Your task to perform on an android device: clear all cookies in the chrome app Image 0: 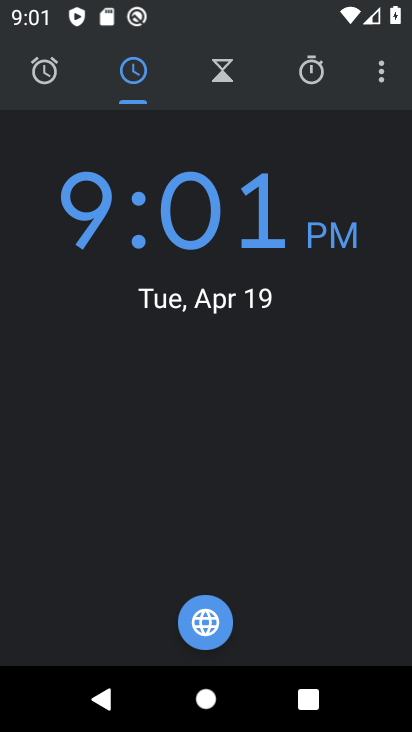
Step 0: press home button
Your task to perform on an android device: clear all cookies in the chrome app Image 1: 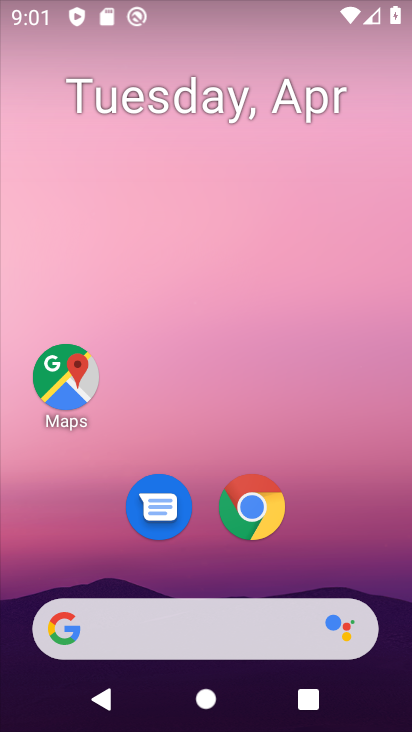
Step 1: drag from (325, 542) to (327, 120)
Your task to perform on an android device: clear all cookies in the chrome app Image 2: 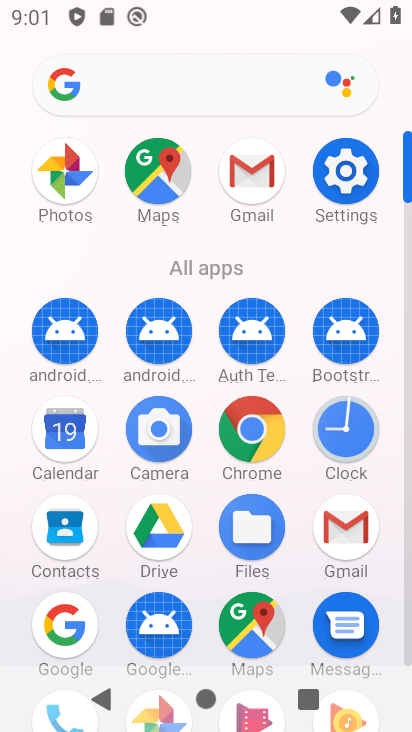
Step 2: click (253, 448)
Your task to perform on an android device: clear all cookies in the chrome app Image 3: 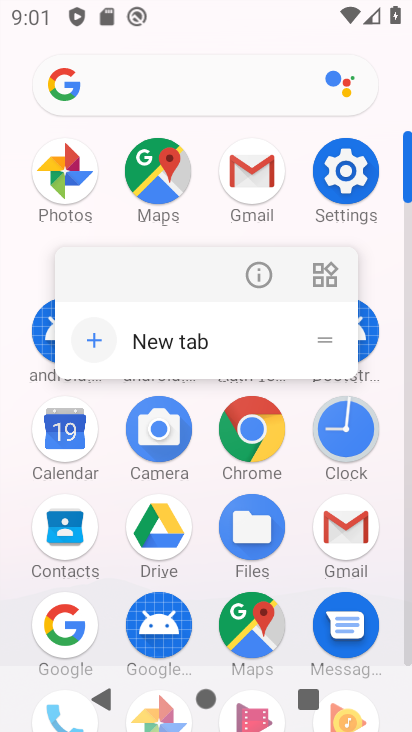
Step 3: click (255, 446)
Your task to perform on an android device: clear all cookies in the chrome app Image 4: 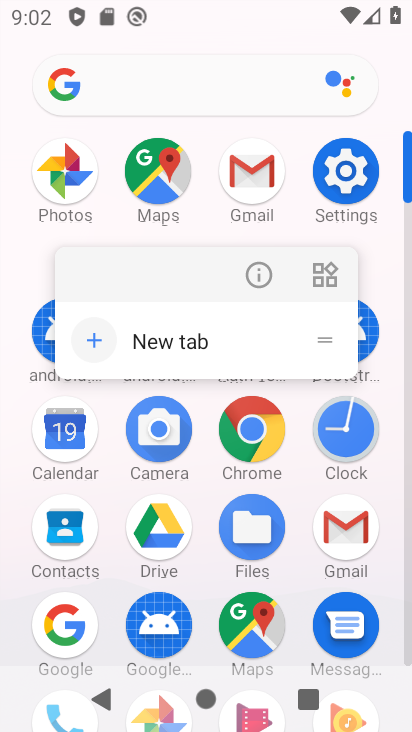
Step 4: click (264, 429)
Your task to perform on an android device: clear all cookies in the chrome app Image 5: 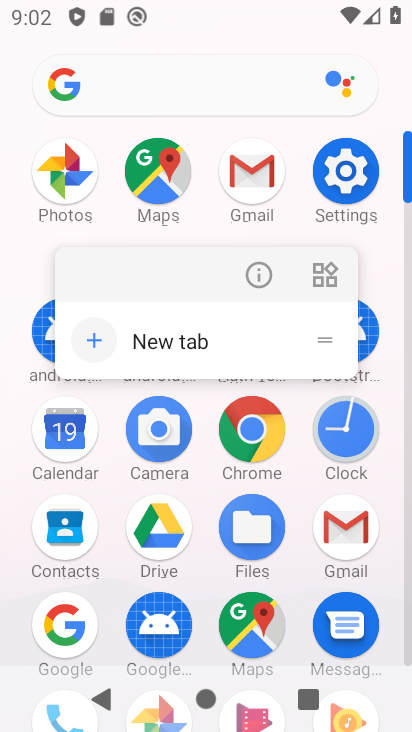
Step 5: click (252, 429)
Your task to perform on an android device: clear all cookies in the chrome app Image 6: 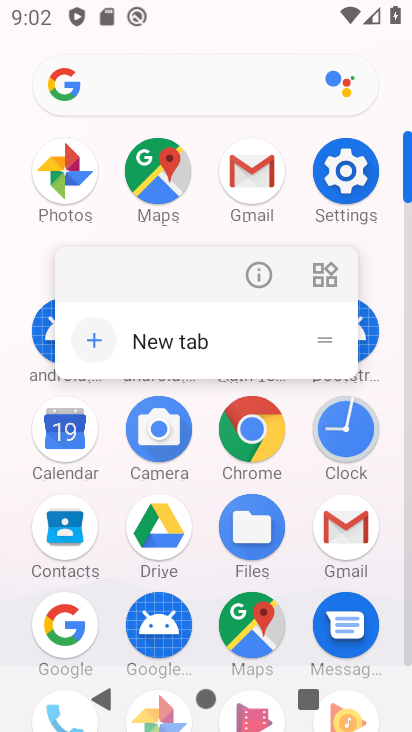
Step 6: click (237, 406)
Your task to perform on an android device: clear all cookies in the chrome app Image 7: 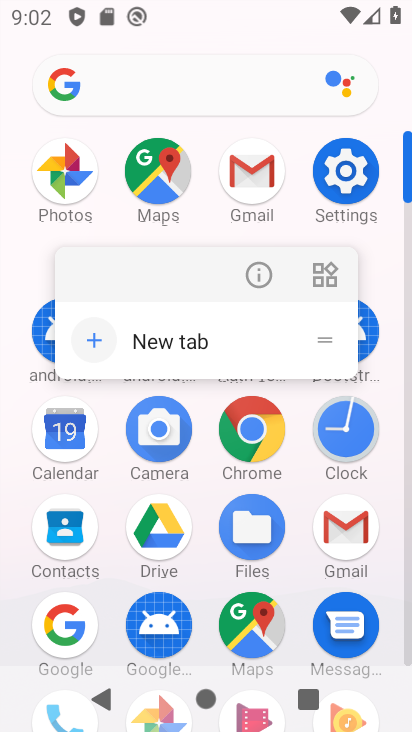
Step 7: click (267, 428)
Your task to perform on an android device: clear all cookies in the chrome app Image 8: 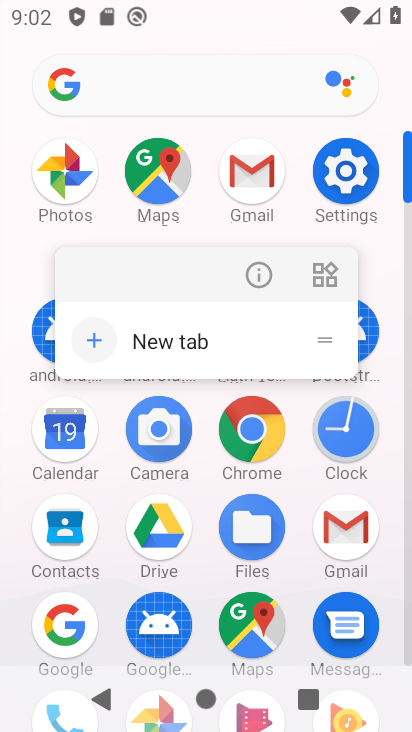
Step 8: click (252, 429)
Your task to perform on an android device: clear all cookies in the chrome app Image 9: 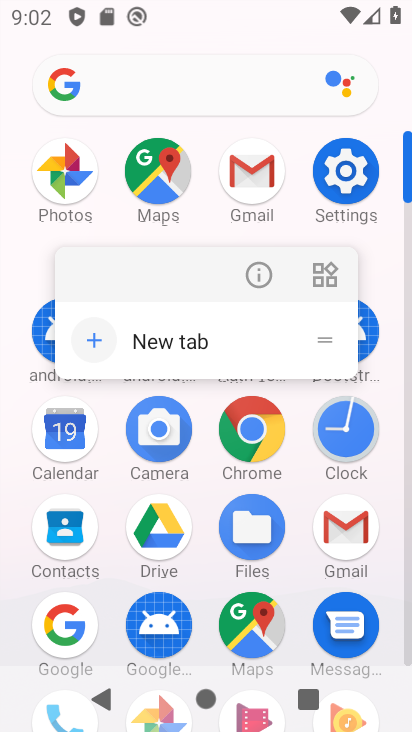
Step 9: click (253, 440)
Your task to perform on an android device: clear all cookies in the chrome app Image 10: 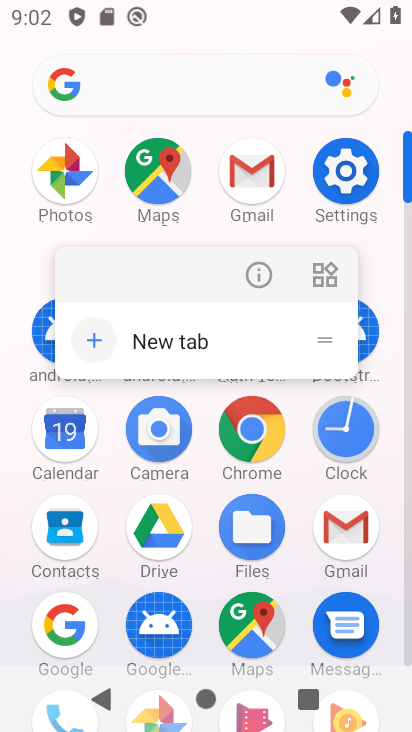
Step 10: click (253, 440)
Your task to perform on an android device: clear all cookies in the chrome app Image 11: 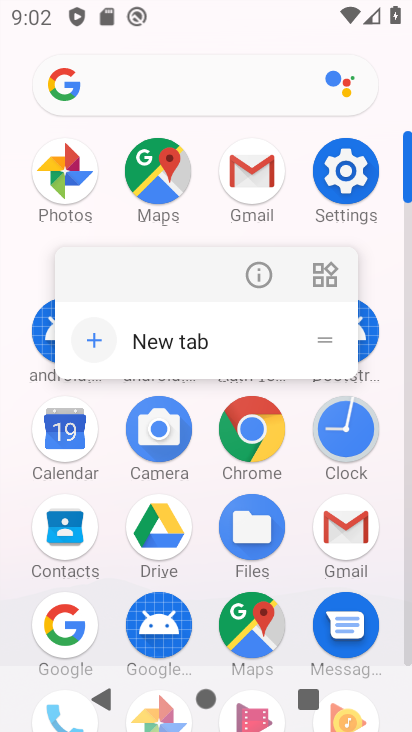
Step 11: click (261, 435)
Your task to perform on an android device: clear all cookies in the chrome app Image 12: 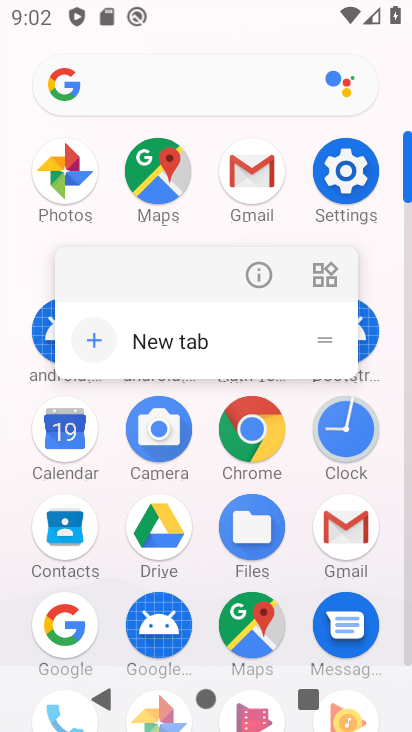
Step 12: click (273, 453)
Your task to perform on an android device: clear all cookies in the chrome app Image 13: 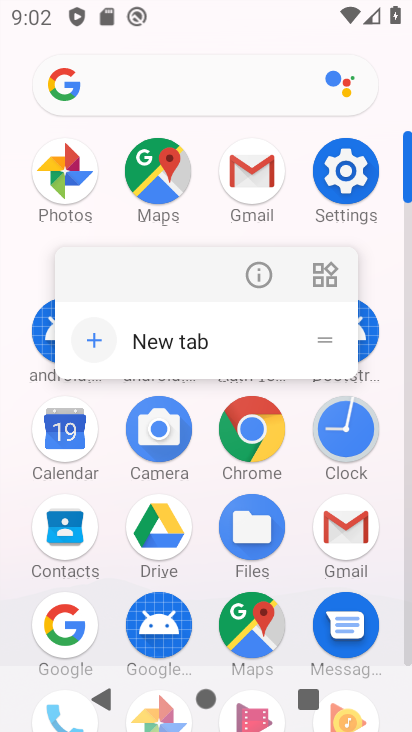
Step 13: click (300, 471)
Your task to perform on an android device: clear all cookies in the chrome app Image 14: 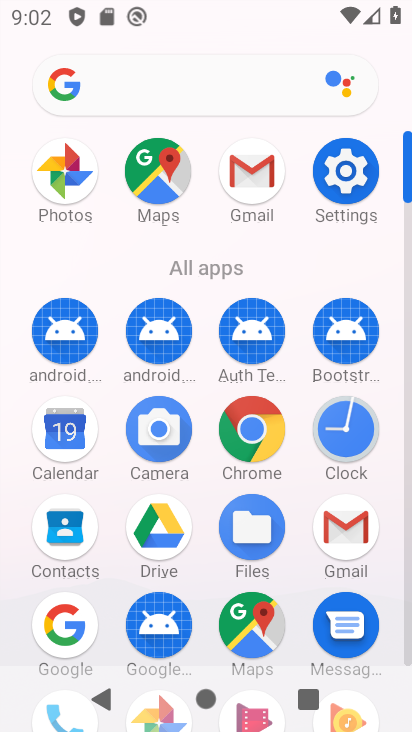
Step 14: click (254, 434)
Your task to perform on an android device: clear all cookies in the chrome app Image 15: 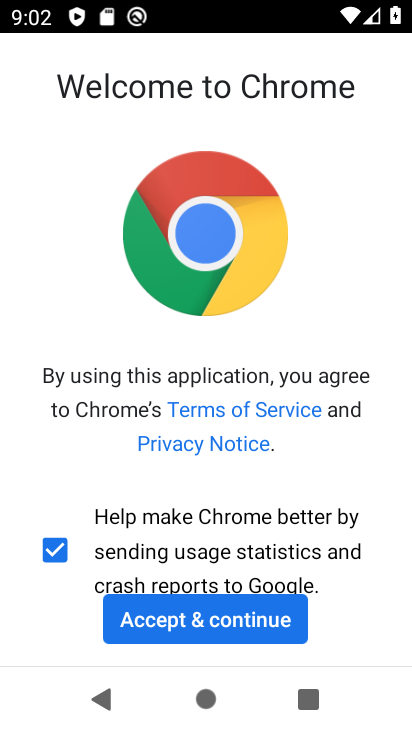
Step 15: click (245, 608)
Your task to perform on an android device: clear all cookies in the chrome app Image 16: 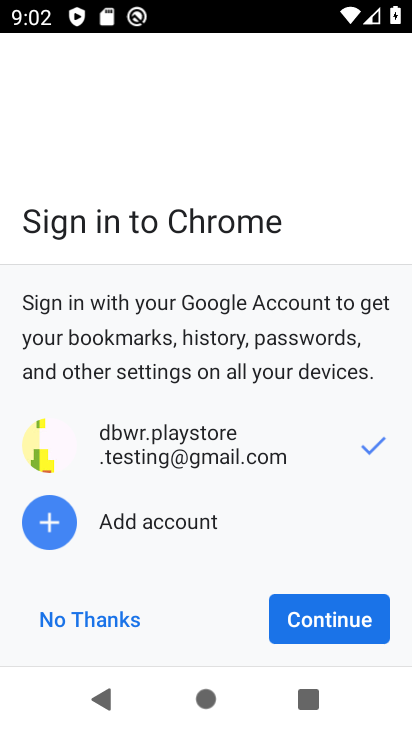
Step 16: click (347, 619)
Your task to perform on an android device: clear all cookies in the chrome app Image 17: 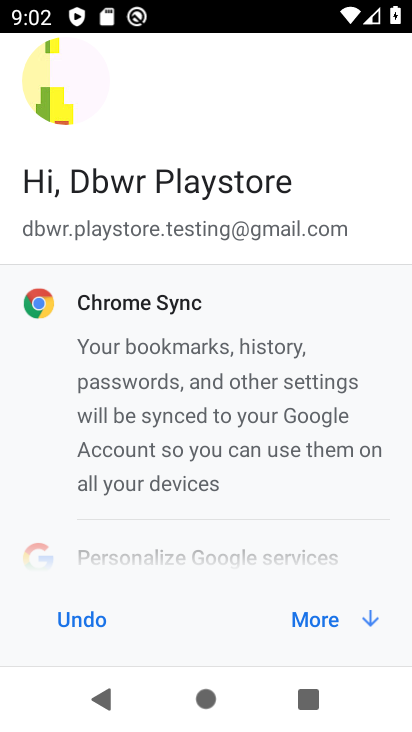
Step 17: click (347, 619)
Your task to perform on an android device: clear all cookies in the chrome app Image 18: 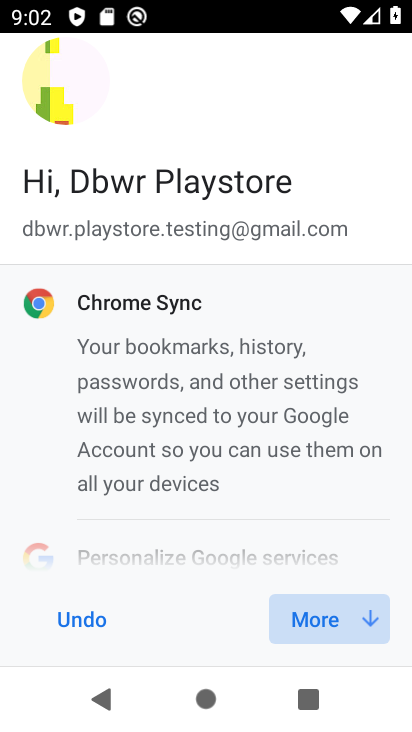
Step 18: click (347, 619)
Your task to perform on an android device: clear all cookies in the chrome app Image 19: 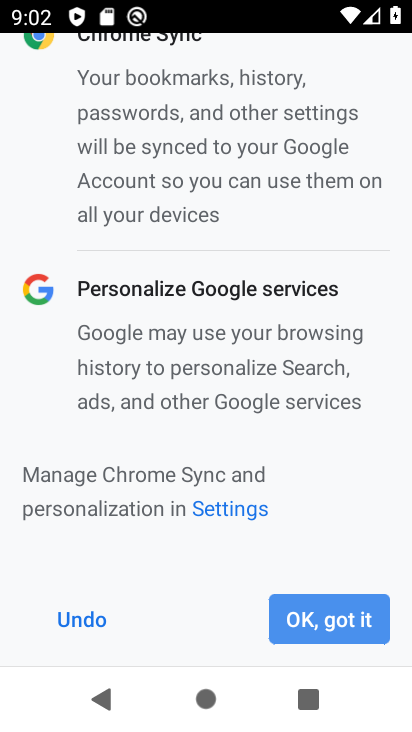
Step 19: click (346, 618)
Your task to perform on an android device: clear all cookies in the chrome app Image 20: 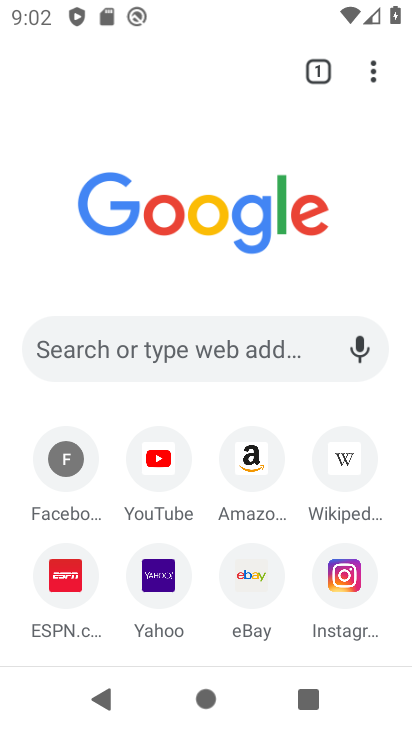
Step 20: task complete